Your task to perform on an android device: Go to ESPN.com Image 0: 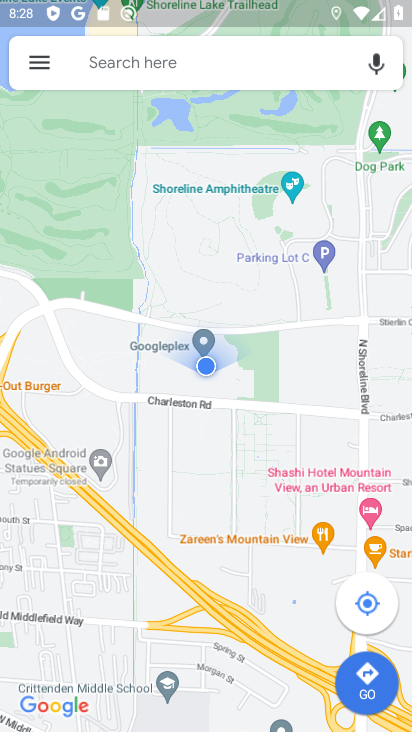
Step 0: press home button
Your task to perform on an android device: Go to ESPN.com Image 1: 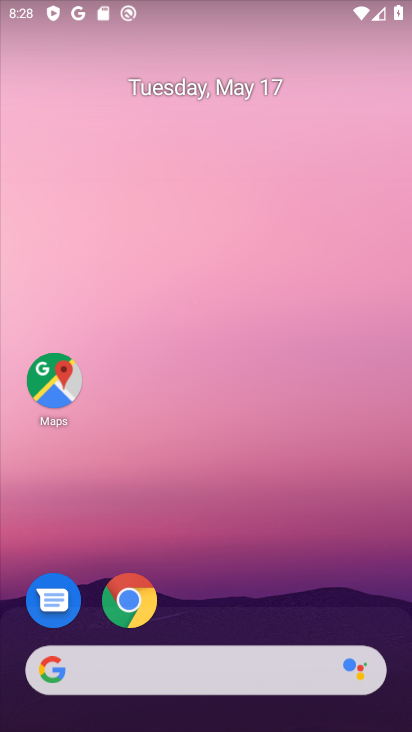
Step 1: click (132, 596)
Your task to perform on an android device: Go to ESPN.com Image 2: 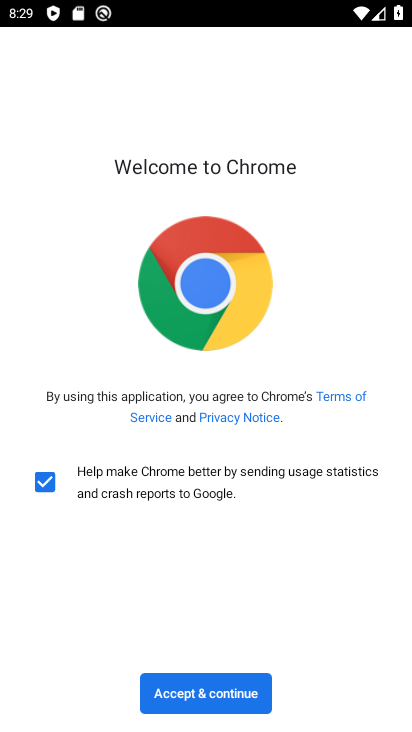
Step 2: click (243, 686)
Your task to perform on an android device: Go to ESPN.com Image 3: 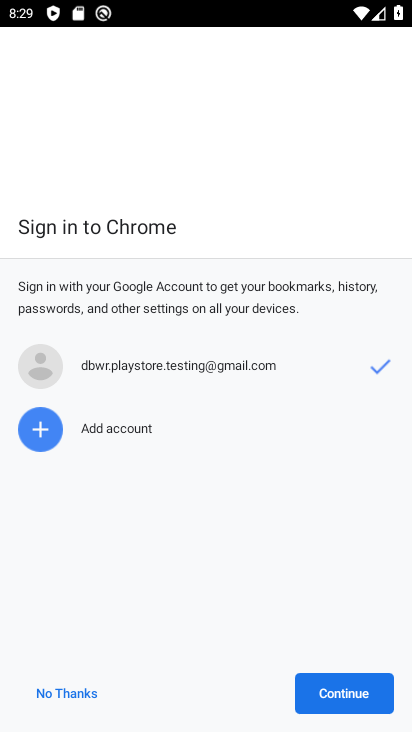
Step 3: click (349, 695)
Your task to perform on an android device: Go to ESPN.com Image 4: 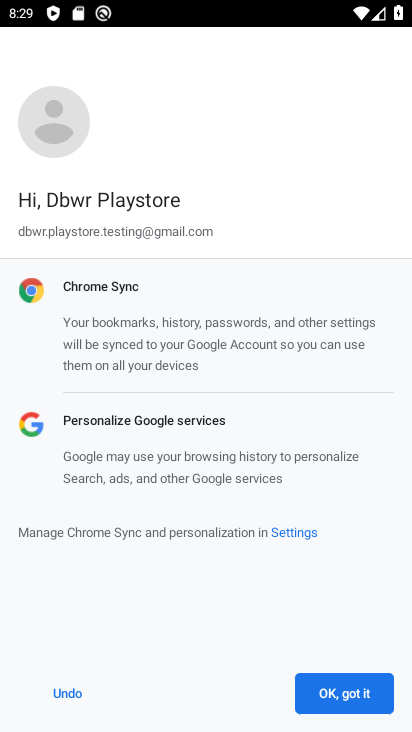
Step 4: click (349, 695)
Your task to perform on an android device: Go to ESPN.com Image 5: 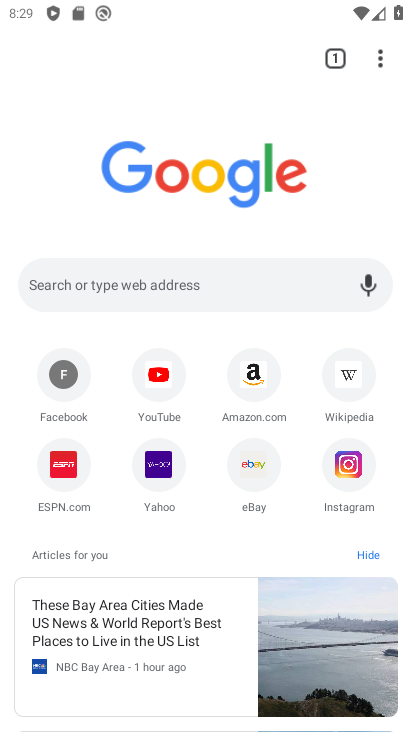
Step 5: click (226, 286)
Your task to perform on an android device: Go to ESPN.com Image 6: 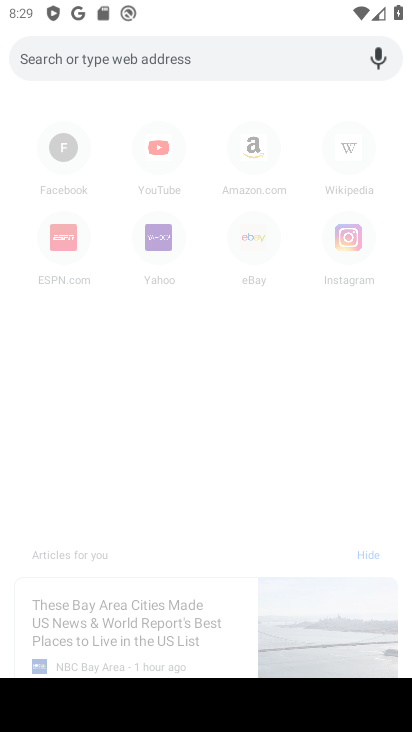
Step 6: type "ESPN.com"
Your task to perform on an android device: Go to ESPN.com Image 7: 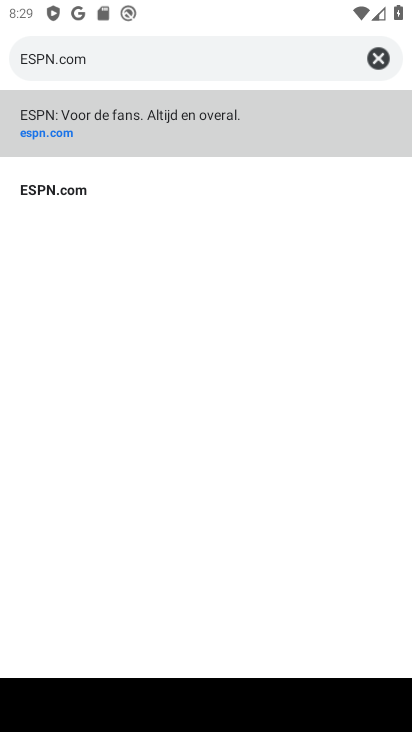
Step 7: click (68, 115)
Your task to perform on an android device: Go to ESPN.com Image 8: 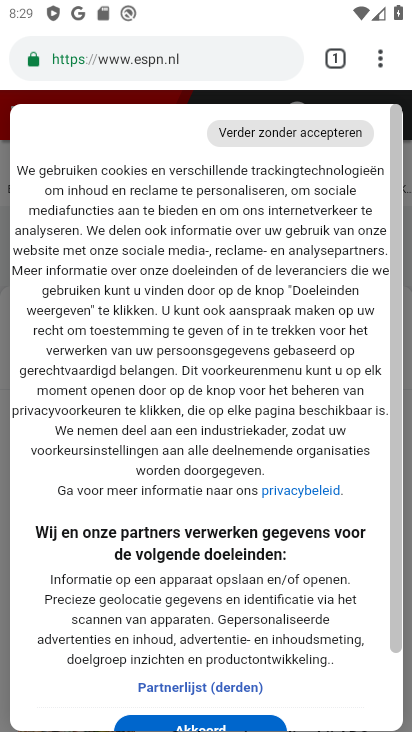
Step 8: click (250, 129)
Your task to perform on an android device: Go to ESPN.com Image 9: 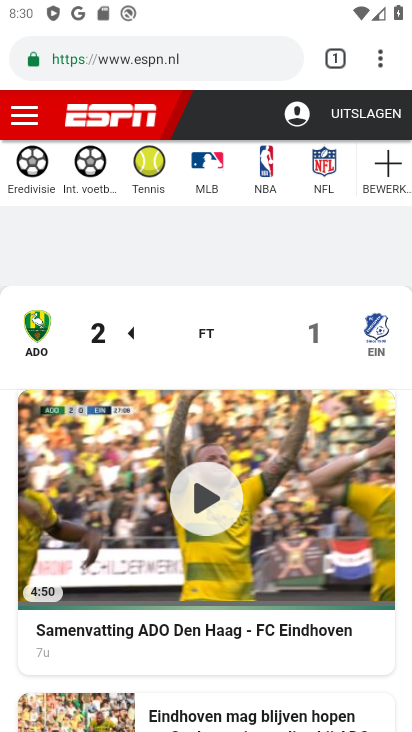
Step 9: task complete